Your task to perform on an android device: turn on location history Image 0: 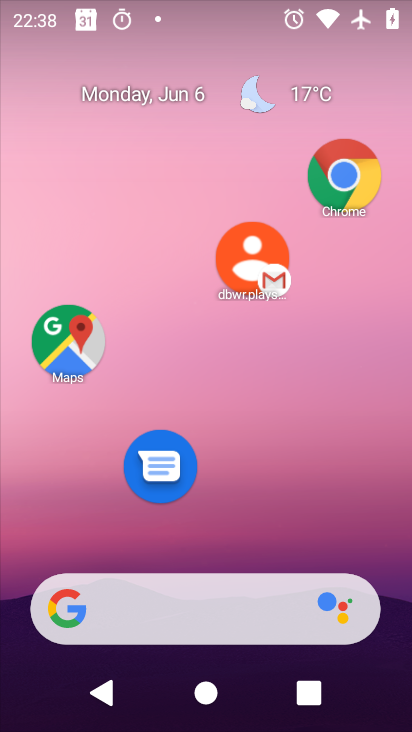
Step 0: click (227, 7)
Your task to perform on an android device: turn on location history Image 1: 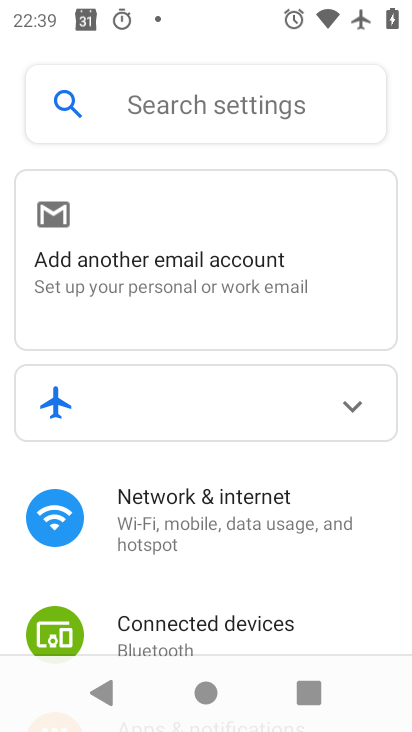
Step 1: drag from (223, 604) to (299, 18)
Your task to perform on an android device: turn on location history Image 2: 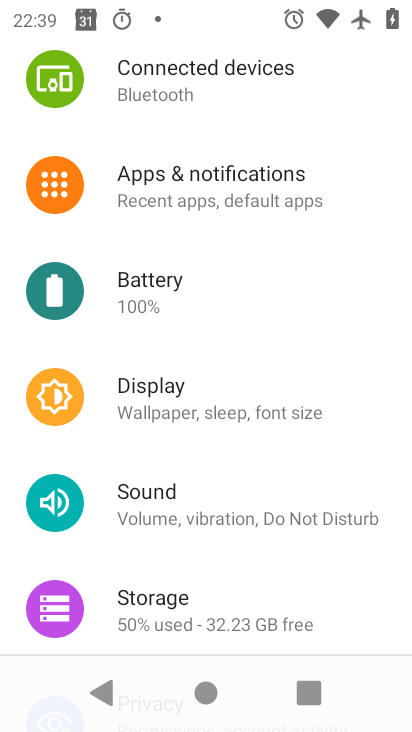
Step 2: drag from (250, 577) to (262, 85)
Your task to perform on an android device: turn on location history Image 3: 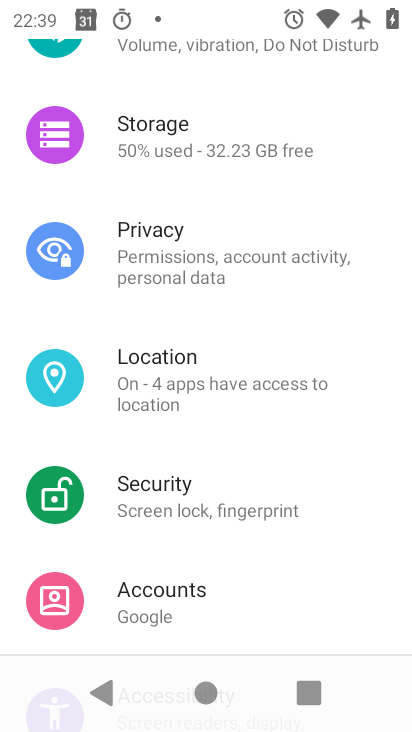
Step 3: click (172, 384)
Your task to perform on an android device: turn on location history Image 4: 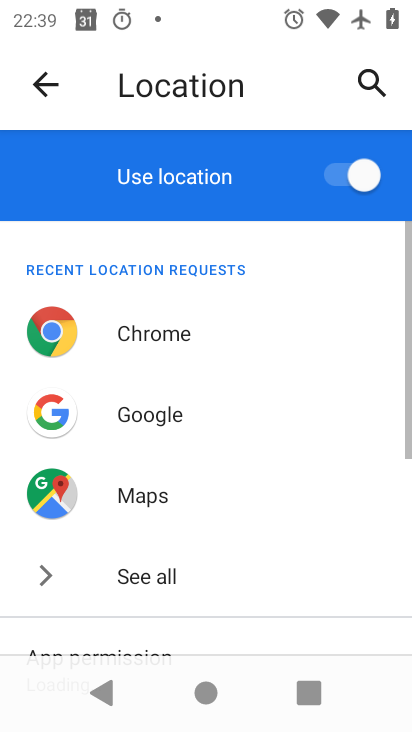
Step 4: drag from (241, 519) to (303, 12)
Your task to perform on an android device: turn on location history Image 5: 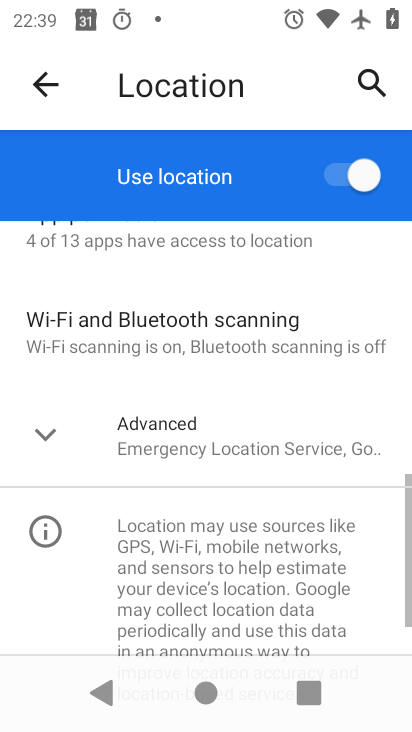
Step 5: drag from (205, 519) to (234, 326)
Your task to perform on an android device: turn on location history Image 6: 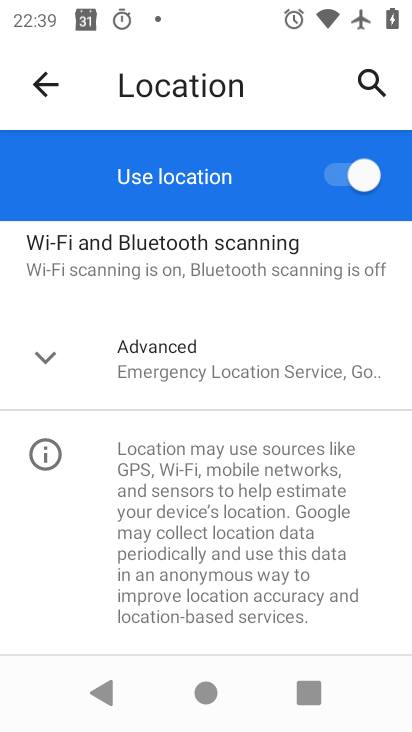
Step 6: click (184, 367)
Your task to perform on an android device: turn on location history Image 7: 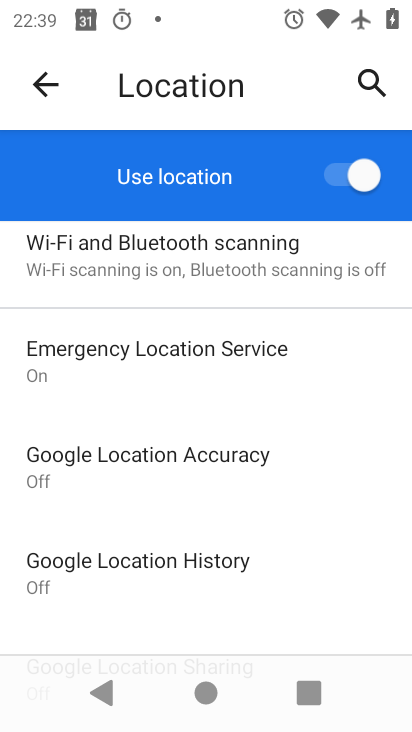
Step 7: click (190, 561)
Your task to perform on an android device: turn on location history Image 8: 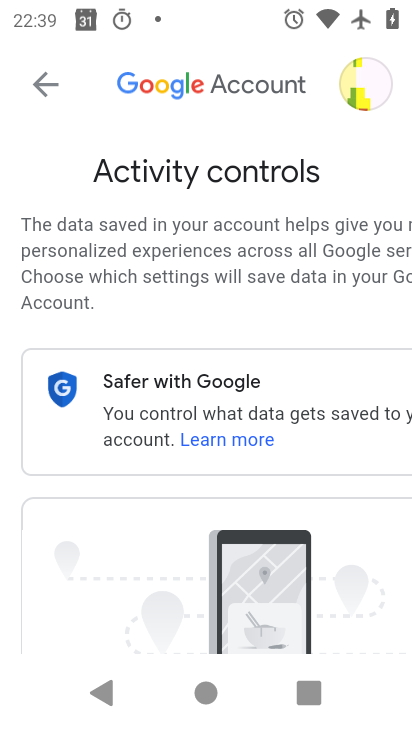
Step 8: drag from (185, 488) to (320, 63)
Your task to perform on an android device: turn on location history Image 9: 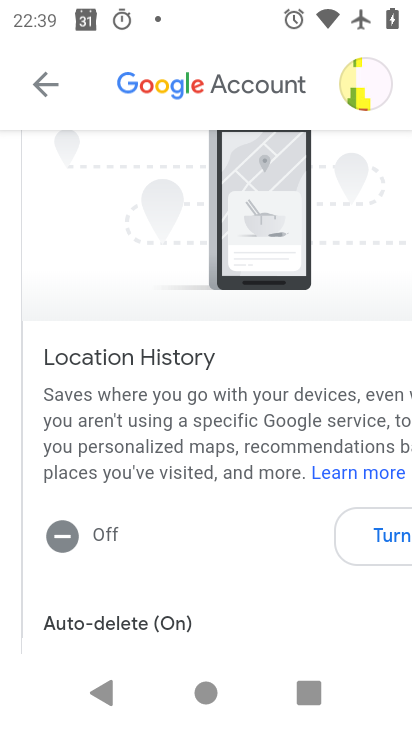
Step 9: drag from (183, 468) to (240, 194)
Your task to perform on an android device: turn on location history Image 10: 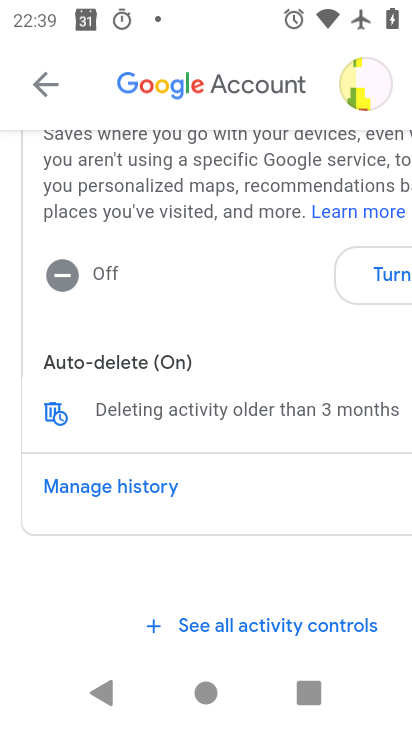
Step 10: drag from (287, 294) to (385, 556)
Your task to perform on an android device: turn on location history Image 11: 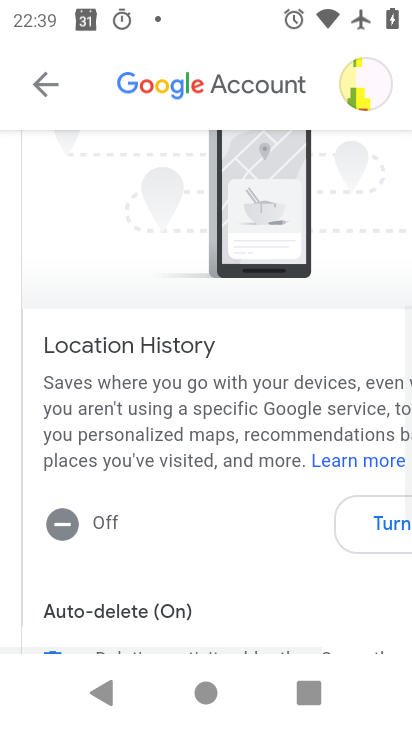
Step 11: press home button
Your task to perform on an android device: turn on location history Image 12: 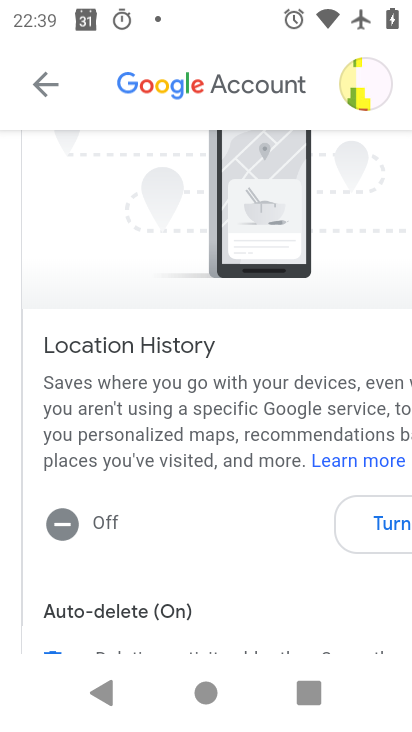
Step 12: click (409, 576)
Your task to perform on an android device: turn on location history Image 13: 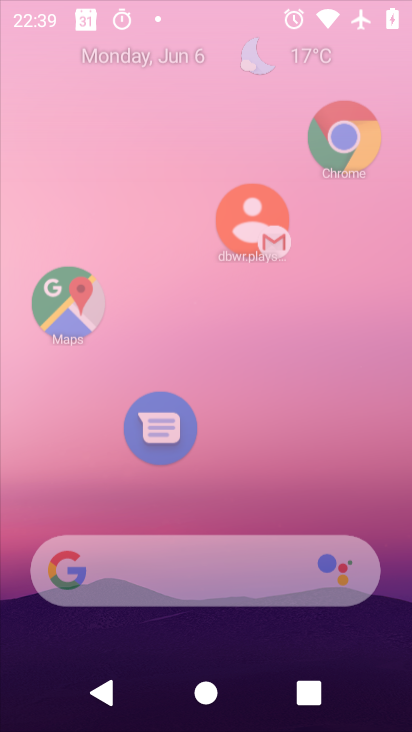
Step 13: drag from (296, 557) to (287, 9)
Your task to perform on an android device: turn on location history Image 14: 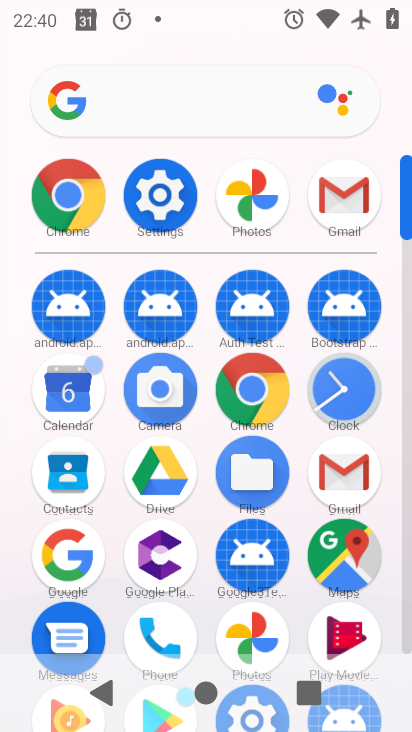
Step 14: click (160, 178)
Your task to perform on an android device: turn on location history Image 15: 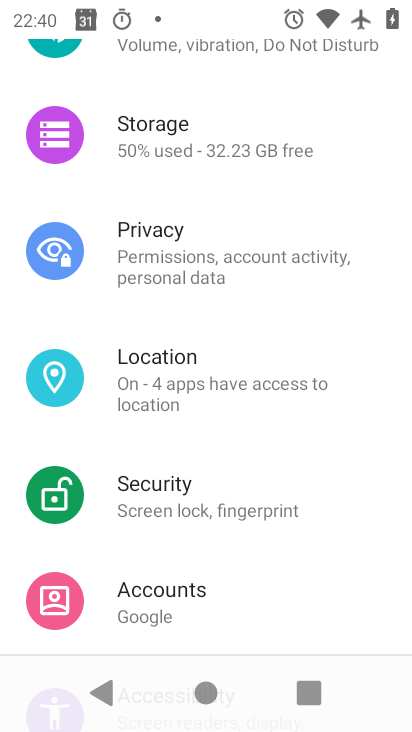
Step 15: click (184, 365)
Your task to perform on an android device: turn on location history Image 16: 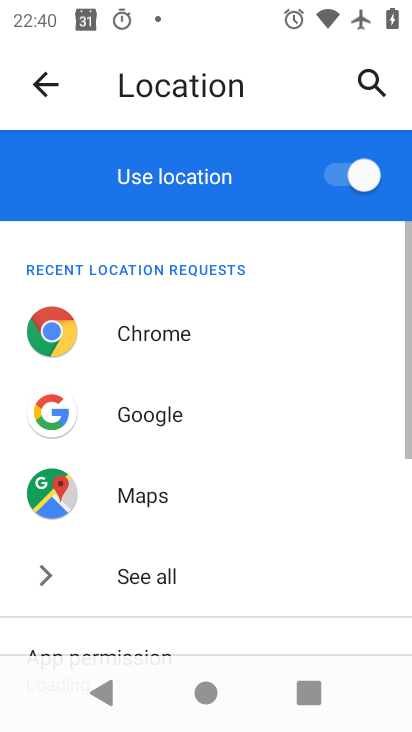
Step 16: drag from (161, 488) to (194, 2)
Your task to perform on an android device: turn on location history Image 17: 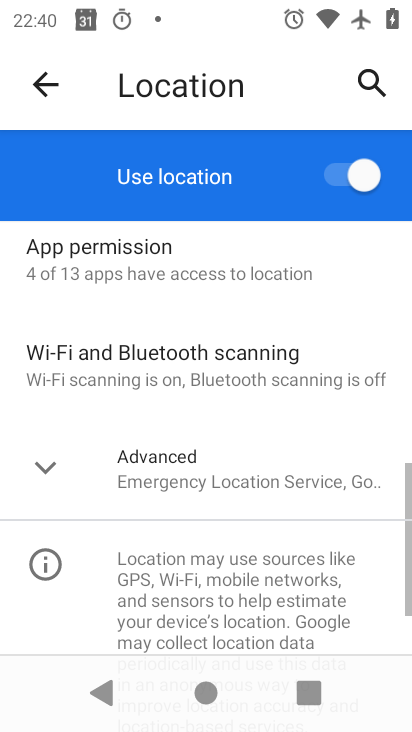
Step 17: click (159, 488)
Your task to perform on an android device: turn on location history Image 18: 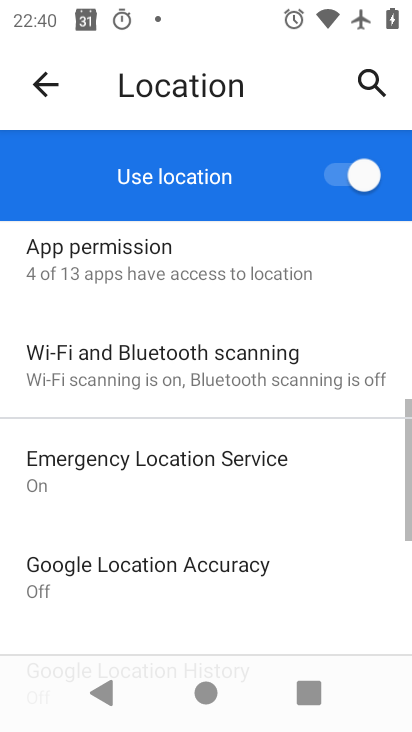
Step 18: drag from (226, 595) to (220, 141)
Your task to perform on an android device: turn on location history Image 19: 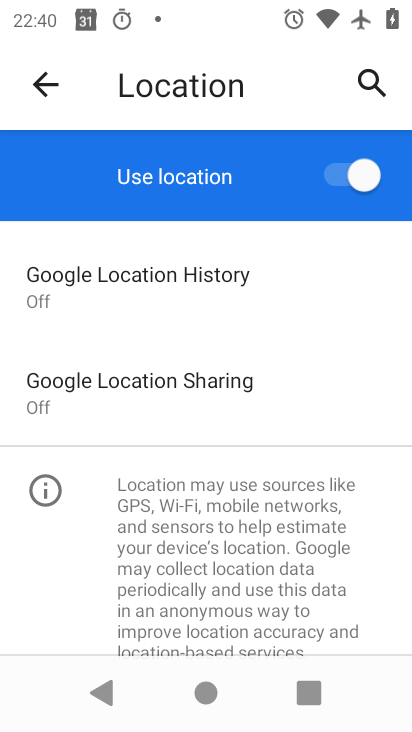
Step 19: click (202, 290)
Your task to perform on an android device: turn on location history Image 20: 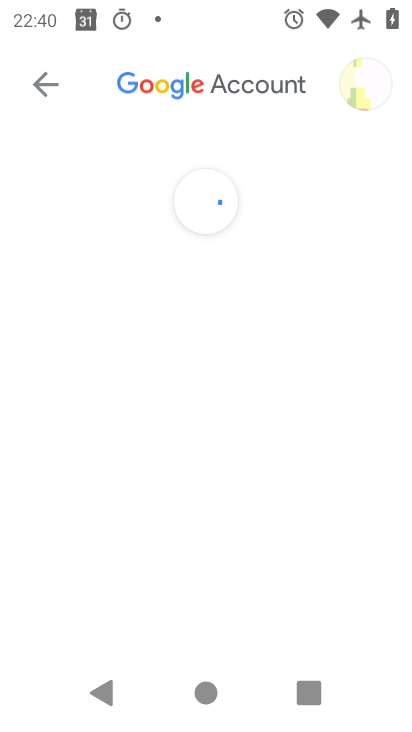
Step 20: drag from (235, 570) to (266, 10)
Your task to perform on an android device: turn on location history Image 21: 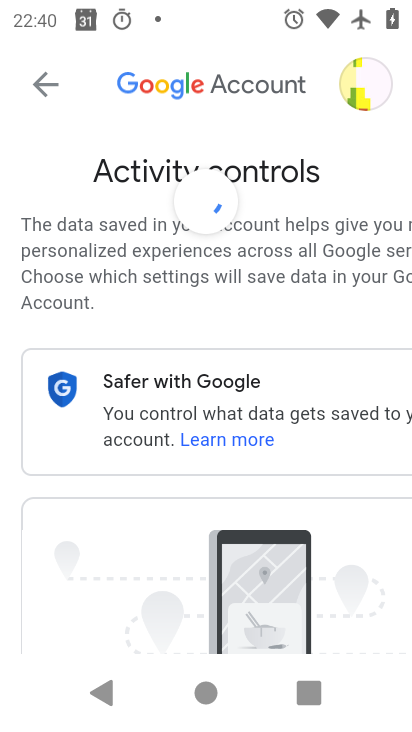
Step 21: drag from (189, 530) to (193, 102)
Your task to perform on an android device: turn on location history Image 22: 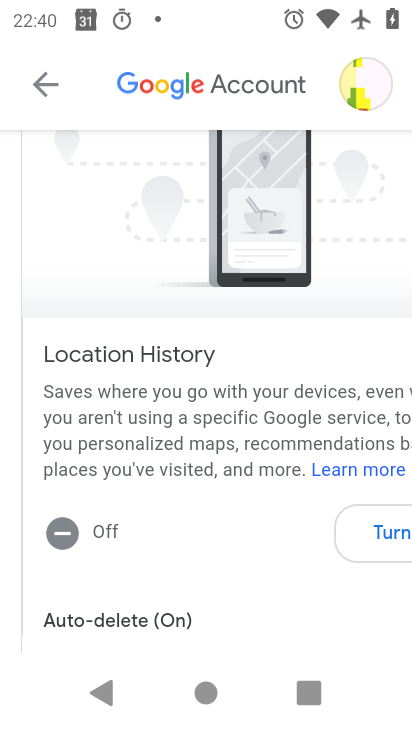
Step 22: drag from (258, 524) to (258, 247)
Your task to perform on an android device: turn on location history Image 23: 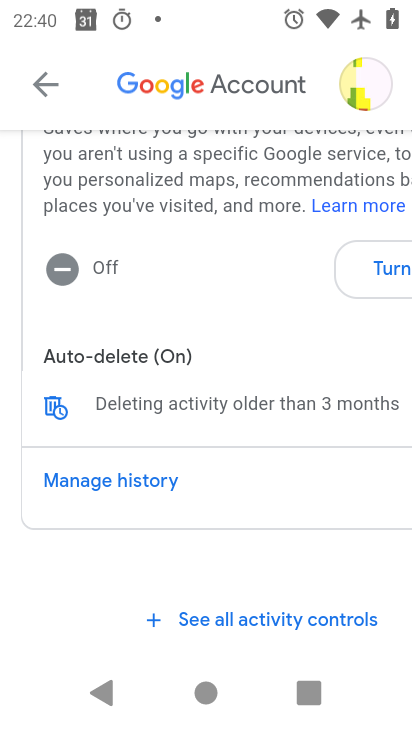
Step 23: click (374, 261)
Your task to perform on an android device: turn on location history Image 24: 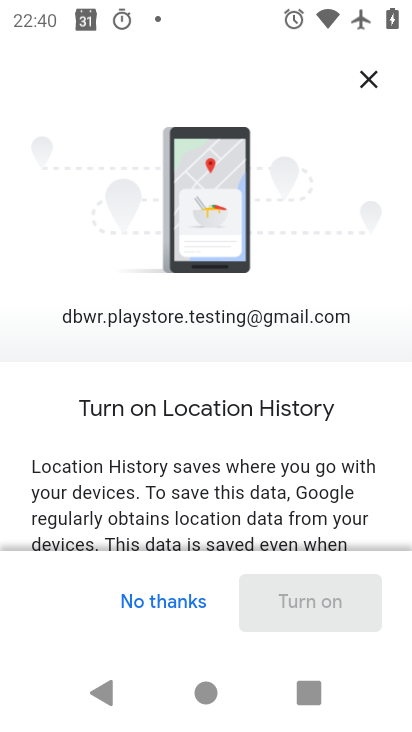
Step 24: drag from (218, 406) to (209, 92)
Your task to perform on an android device: turn on location history Image 25: 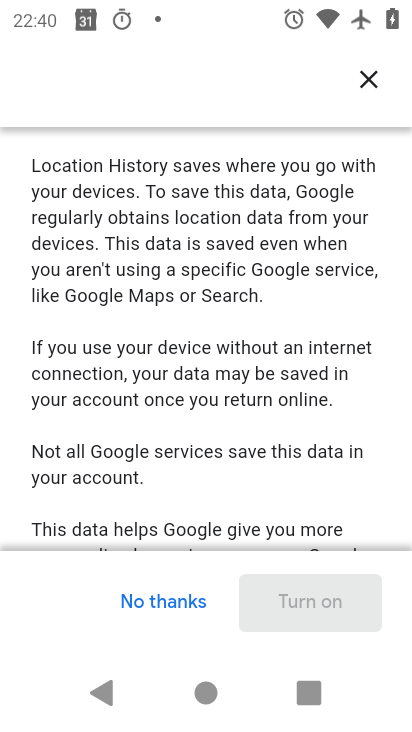
Step 25: drag from (239, 339) to (238, 50)
Your task to perform on an android device: turn on location history Image 26: 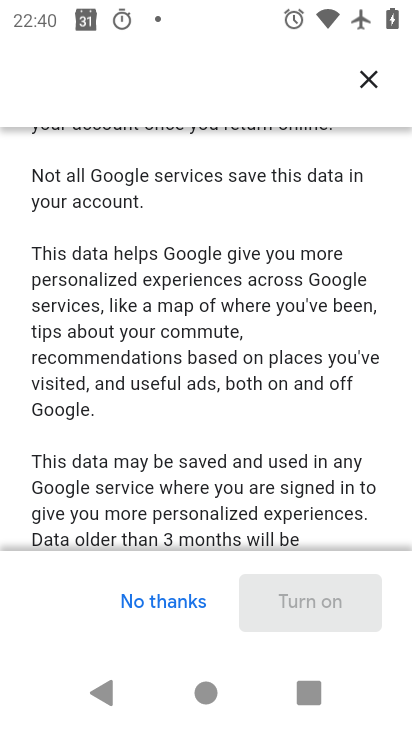
Step 26: drag from (234, 498) to (241, 0)
Your task to perform on an android device: turn on location history Image 27: 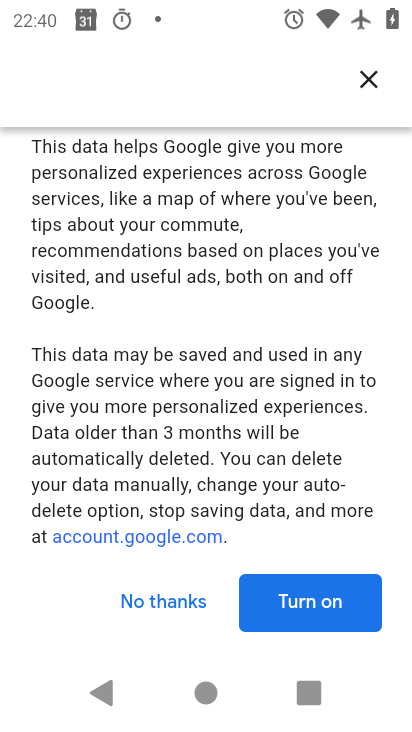
Step 27: click (323, 597)
Your task to perform on an android device: turn on location history Image 28: 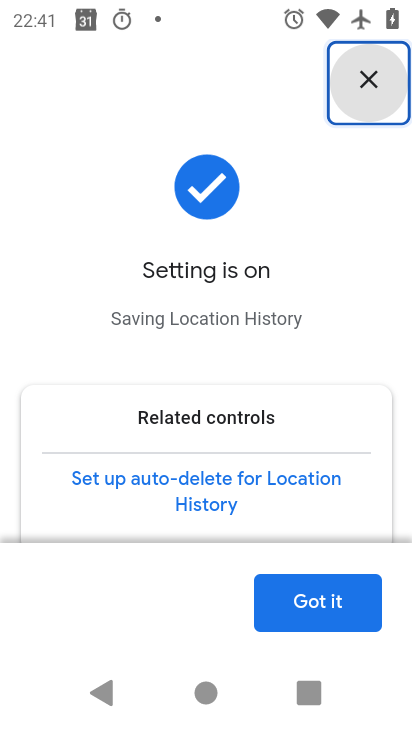
Step 28: drag from (219, 471) to (285, 22)
Your task to perform on an android device: turn on location history Image 29: 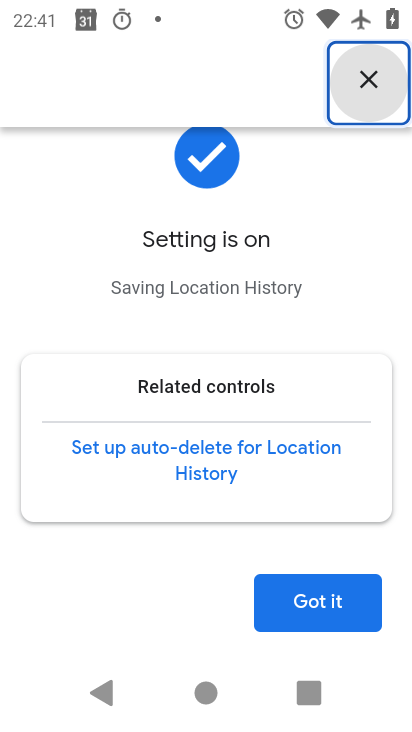
Step 29: click (317, 613)
Your task to perform on an android device: turn on location history Image 30: 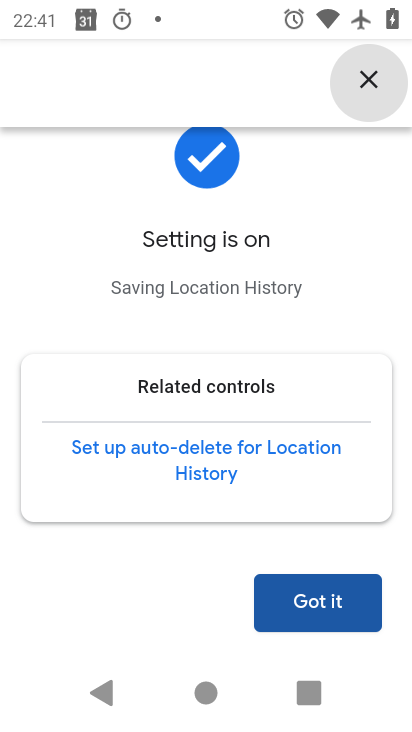
Step 30: task complete